Your task to perform on an android device: open device folders in google photos Image 0: 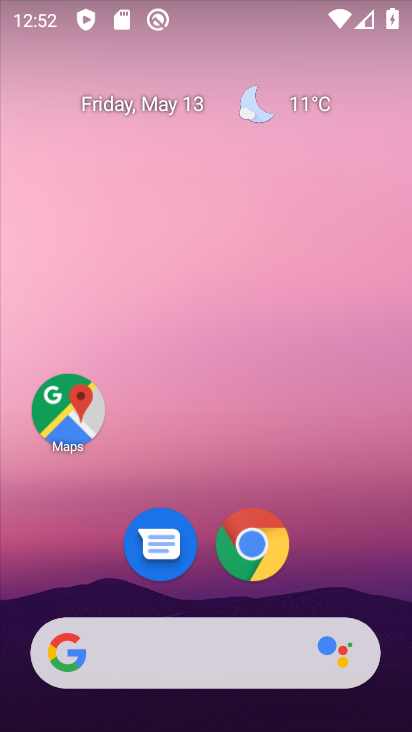
Step 0: drag from (198, 602) to (244, 250)
Your task to perform on an android device: open device folders in google photos Image 1: 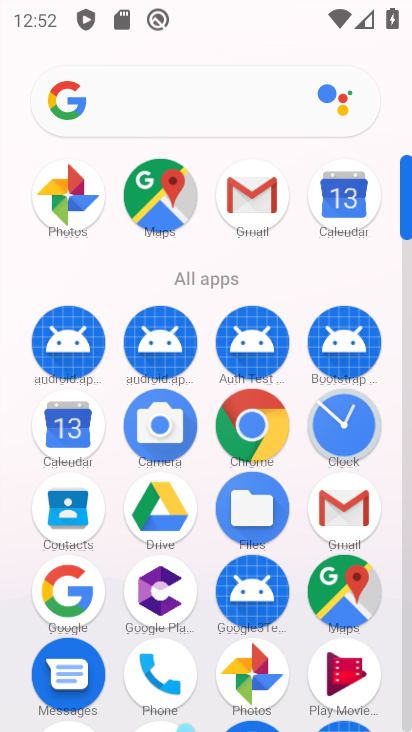
Step 1: click (69, 192)
Your task to perform on an android device: open device folders in google photos Image 2: 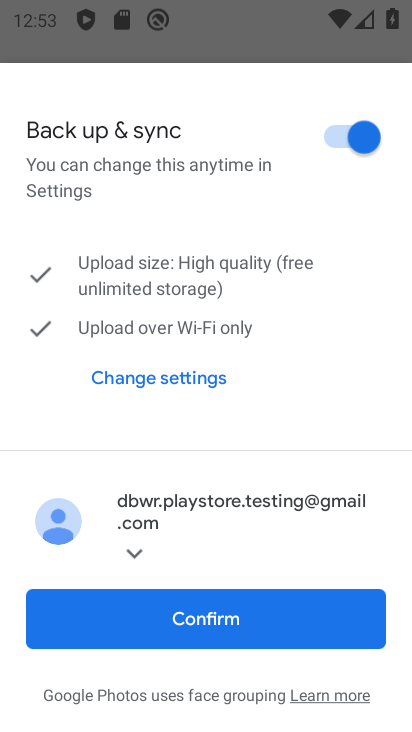
Step 2: click (234, 633)
Your task to perform on an android device: open device folders in google photos Image 3: 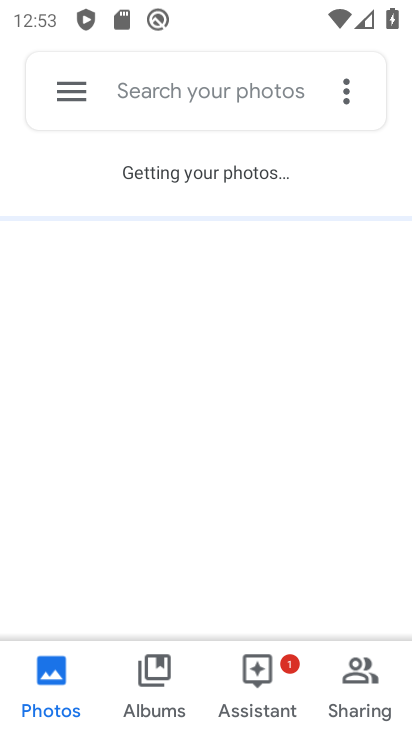
Step 3: click (83, 92)
Your task to perform on an android device: open device folders in google photos Image 4: 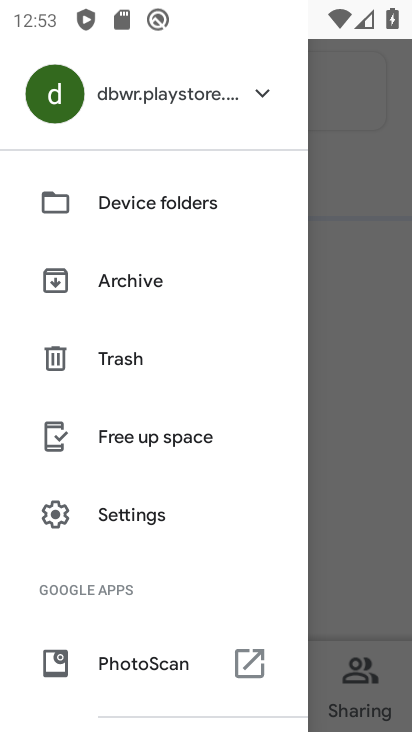
Step 4: click (176, 206)
Your task to perform on an android device: open device folders in google photos Image 5: 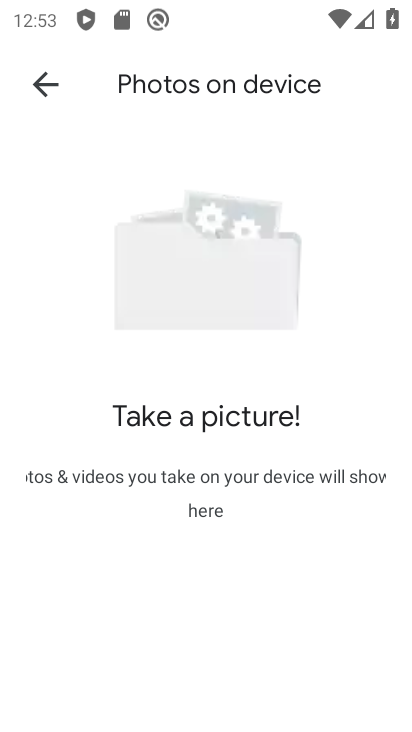
Step 5: task complete